Your task to perform on an android device: add a contact Image 0: 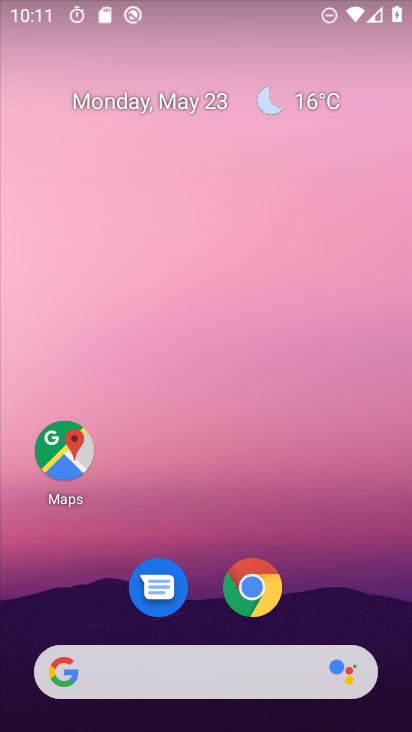
Step 0: drag from (175, 603) to (252, 52)
Your task to perform on an android device: add a contact Image 1: 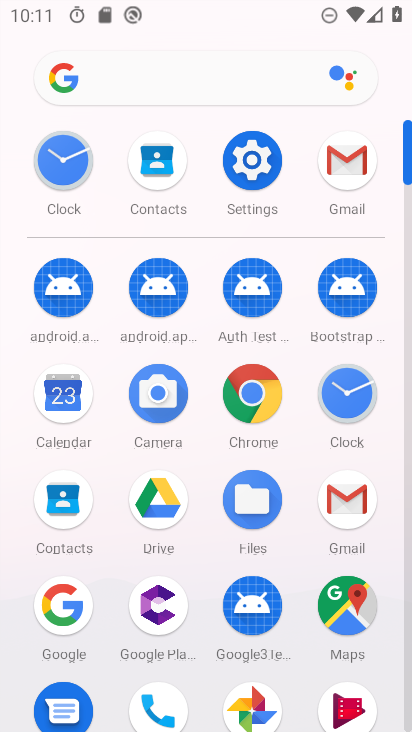
Step 1: click (68, 503)
Your task to perform on an android device: add a contact Image 2: 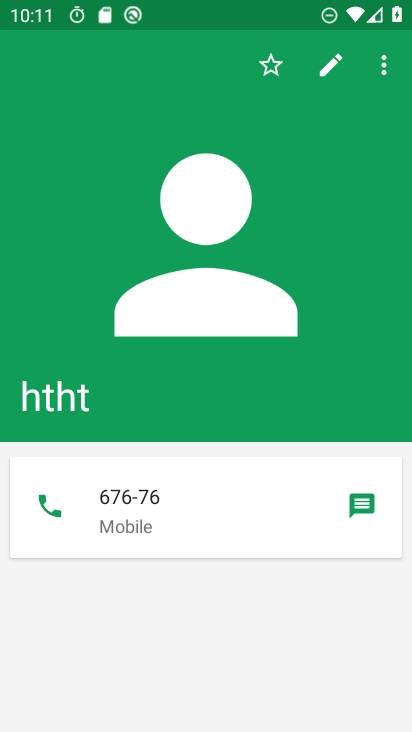
Step 2: press back button
Your task to perform on an android device: add a contact Image 3: 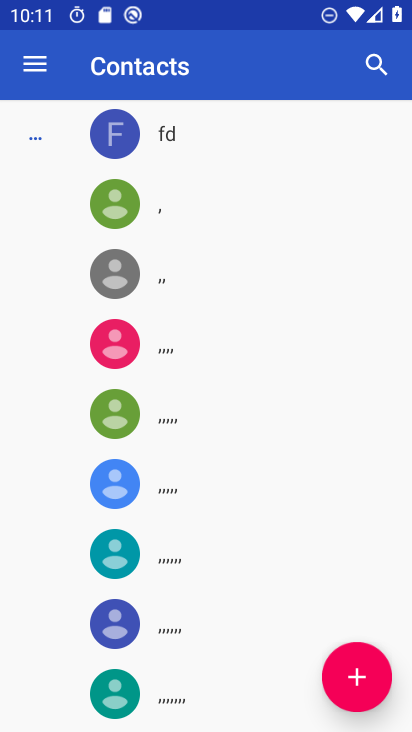
Step 3: click (366, 664)
Your task to perform on an android device: add a contact Image 4: 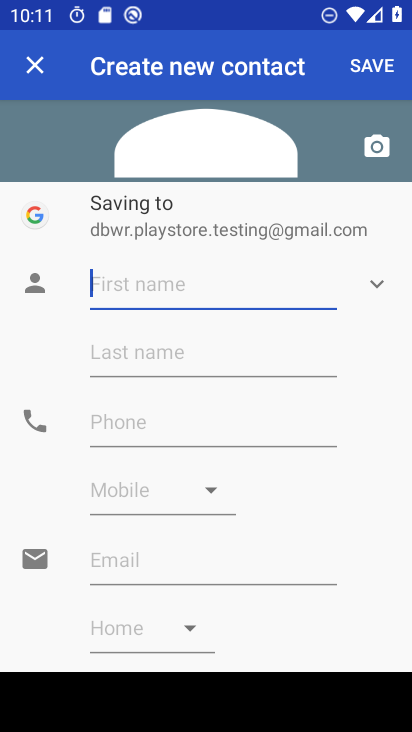
Step 4: type "hfhv"
Your task to perform on an android device: add a contact Image 5: 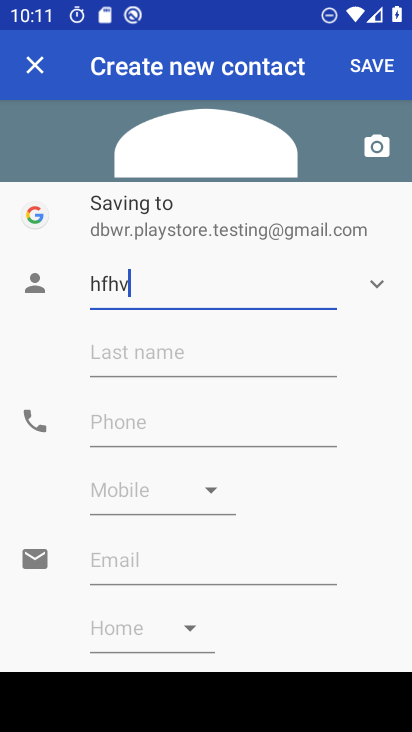
Step 5: click (197, 346)
Your task to perform on an android device: add a contact Image 6: 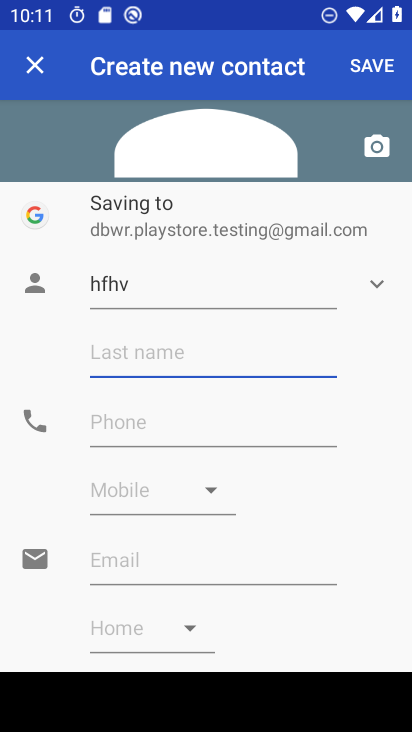
Step 6: click (126, 423)
Your task to perform on an android device: add a contact Image 7: 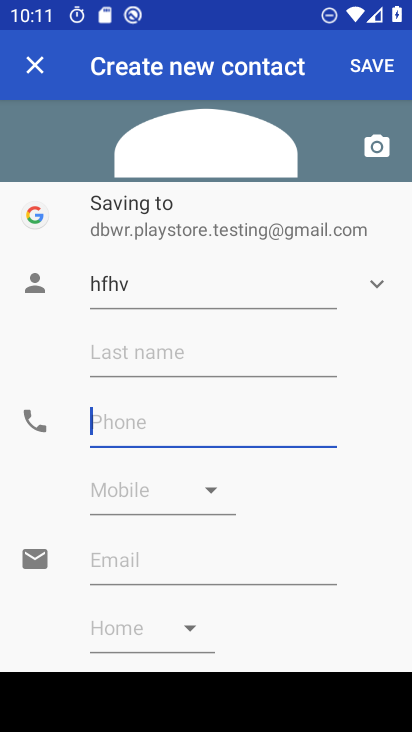
Step 7: type "88686"
Your task to perform on an android device: add a contact Image 8: 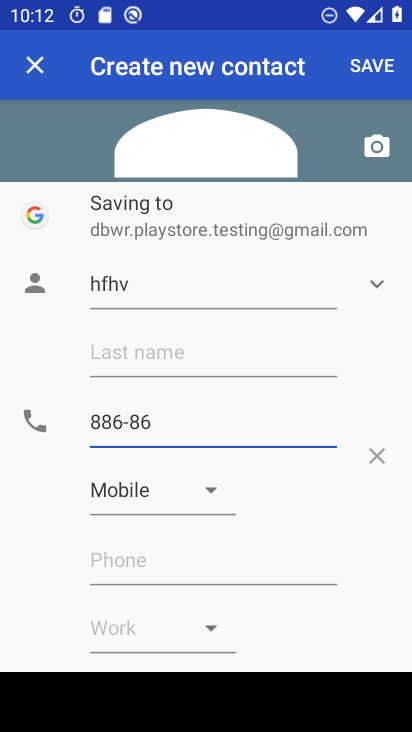
Step 8: click (362, 64)
Your task to perform on an android device: add a contact Image 9: 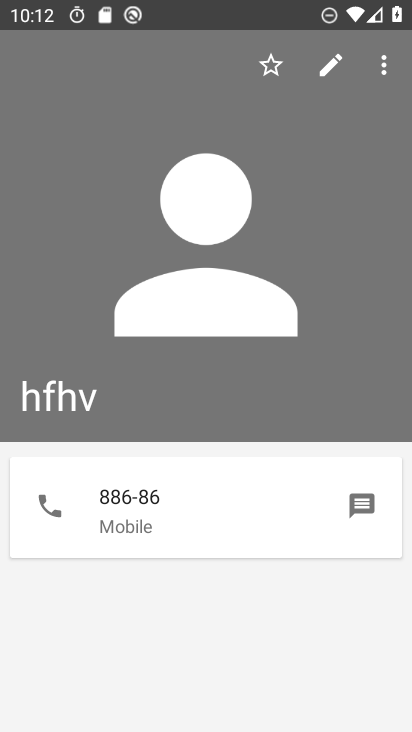
Step 9: task complete